Your task to perform on an android device: toggle improve location accuracy Image 0: 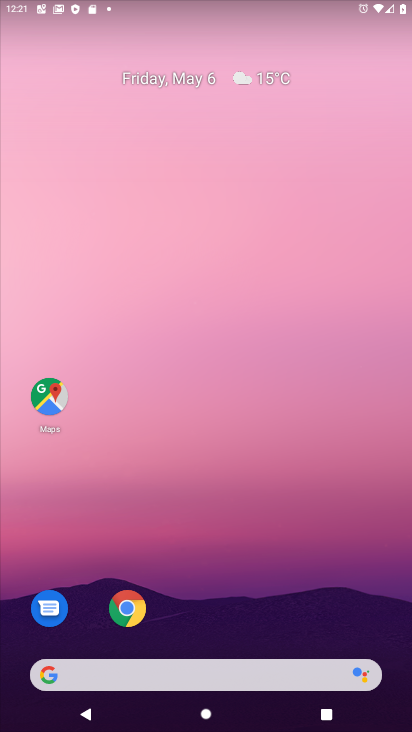
Step 0: drag from (241, 594) to (241, 110)
Your task to perform on an android device: toggle improve location accuracy Image 1: 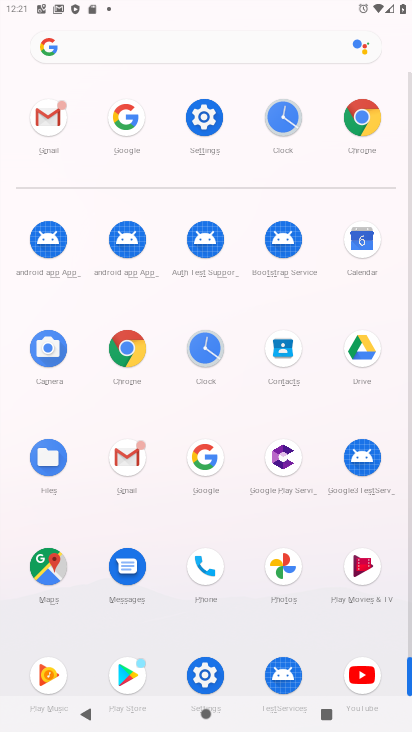
Step 1: click (205, 129)
Your task to perform on an android device: toggle improve location accuracy Image 2: 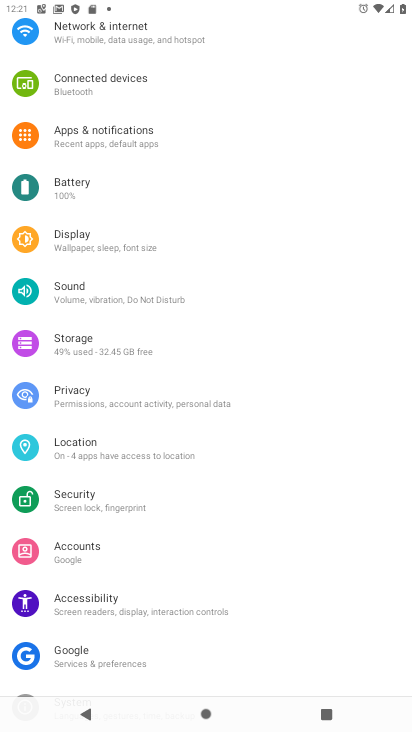
Step 2: click (85, 451)
Your task to perform on an android device: toggle improve location accuracy Image 3: 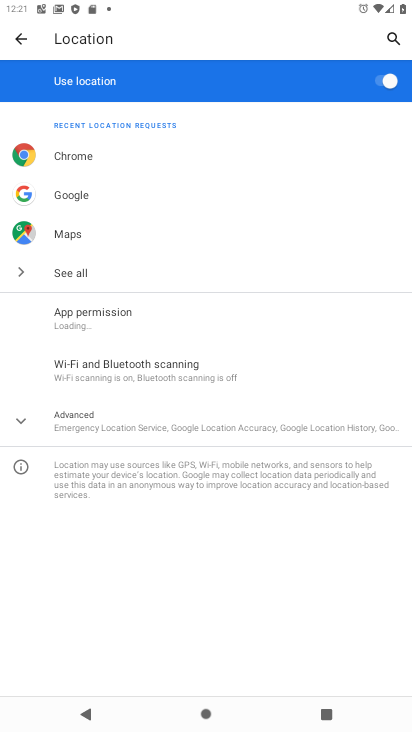
Step 3: click (20, 421)
Your task to perform on an android device: toggle improve location accuracy Image 4: 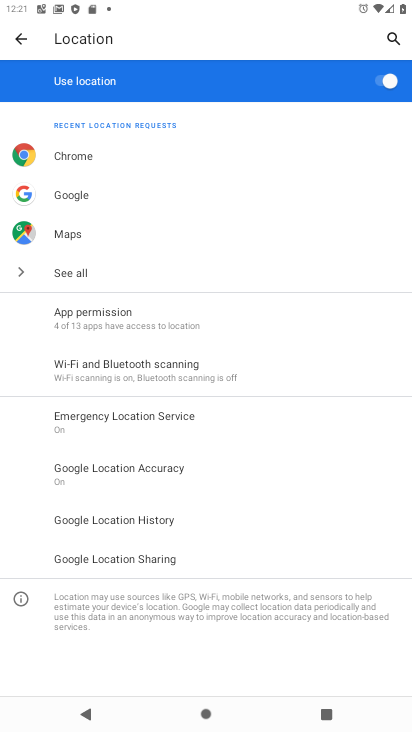
Step 4: click (111, 472)
Your task to perform on an android device: toggle improve location accuracy Image 5: 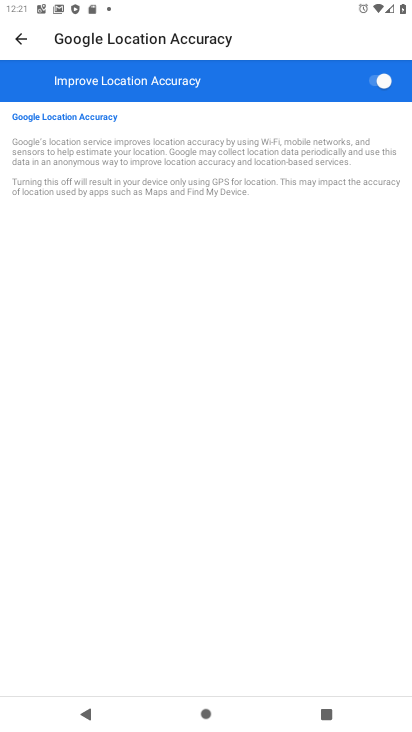
Step 5: task complete